Your task to perform on an android device: see tabs open on other devices in the chrome app Image 0: 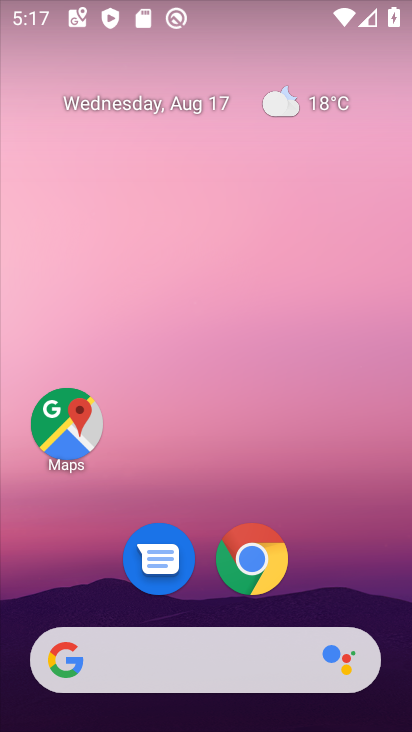
Step 0: click (257, 577)
Your task to perform on an android device: see tabs open on other devices in the chrome app Image 1: 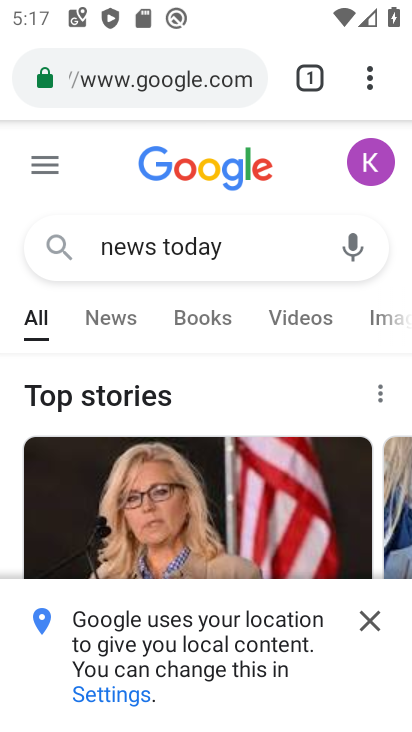
Step 1: task complete